Your task to perform on an android device: turn notification dots off Image 0: 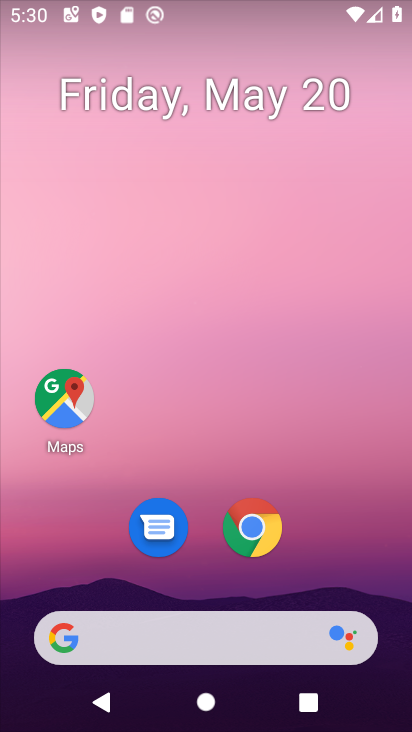
Step 0: drag from (228, 658) to (246, 12)
Your task to perform on an android device: turn notification dots off Image 1: 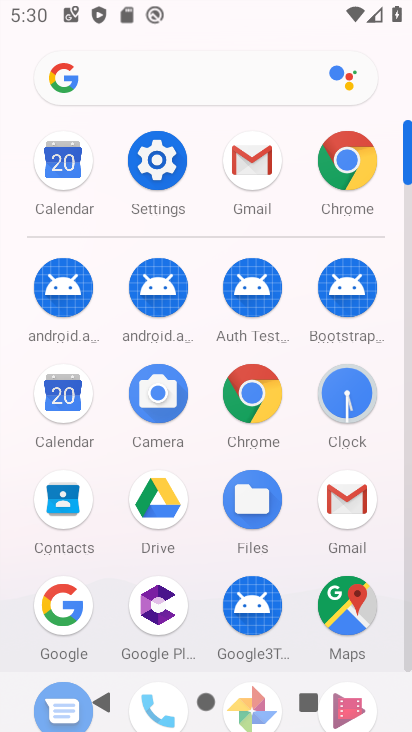
Step 1: drag from (285, 554) to (288, 166)
Your task to perform on an android device: turn notification dots off Image 2: 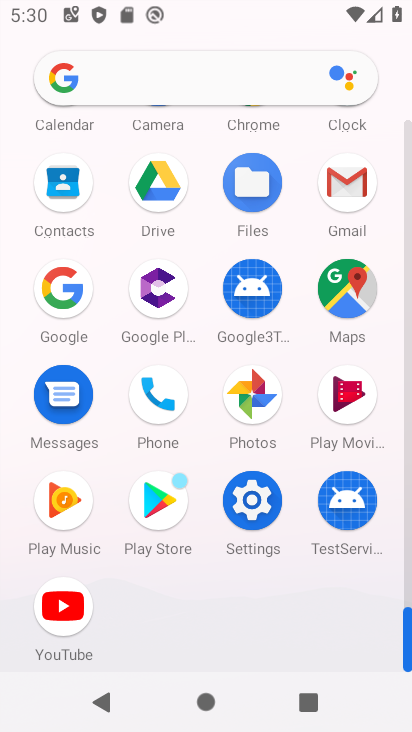
Step 2: click (248, 507)
Your task to perform on an android device: turn notification dots off Image 3: 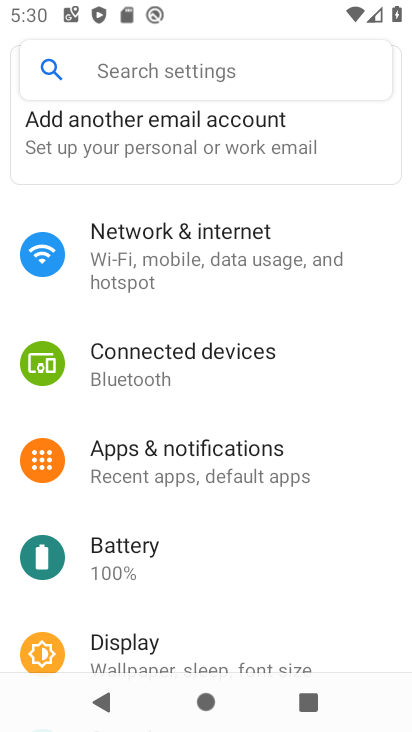
Step 3: click (221, 469)
Your task to perform on an android device: turn notification dots off Image 4: 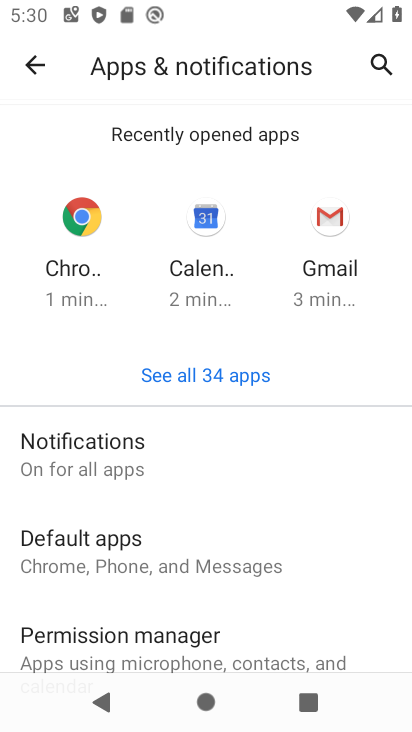
Step 4: drag from (232, 640) to (208, 330)
Your task to perform on an android device: turn notification dots off Image 5: 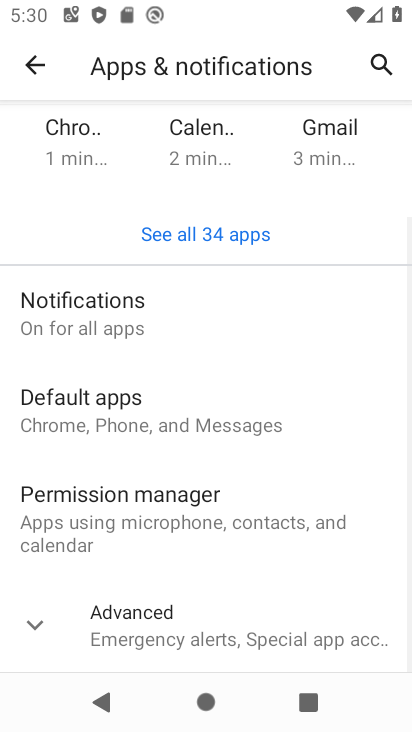
Step 5: click (141, 319)
Your task to perform on an android device: turn notification dots off Image 6: 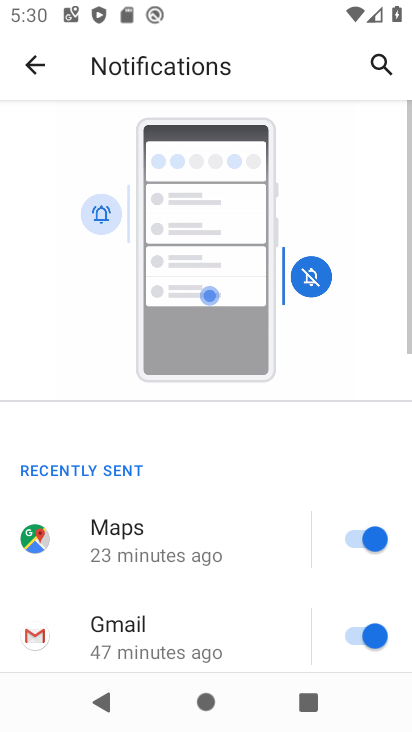
Step 6: drag from (203, 655) to (218, 290)
Your task to perform on an android device: turn notification dots off Image 7: 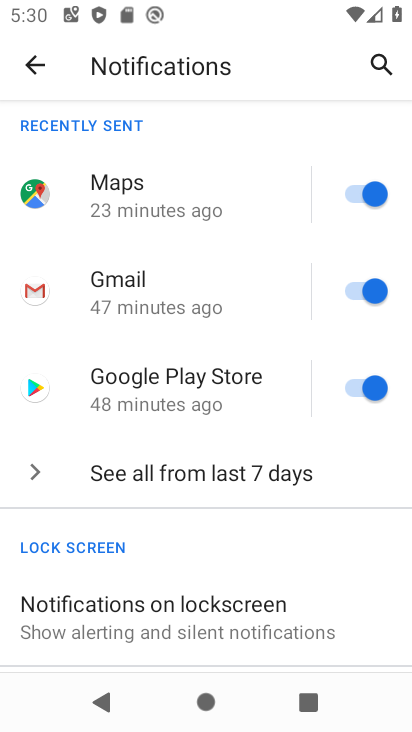
Step 7: drag from (290, 602) to (271, 235)
Your task to perform on an android device: turn notification dots off Image 8: 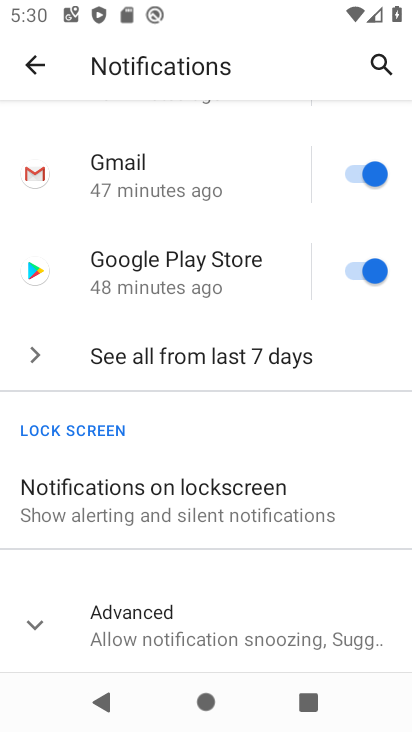
Step 8: click (211, 628)
Your task to perform on an android device: turn notification dots off Image 9: 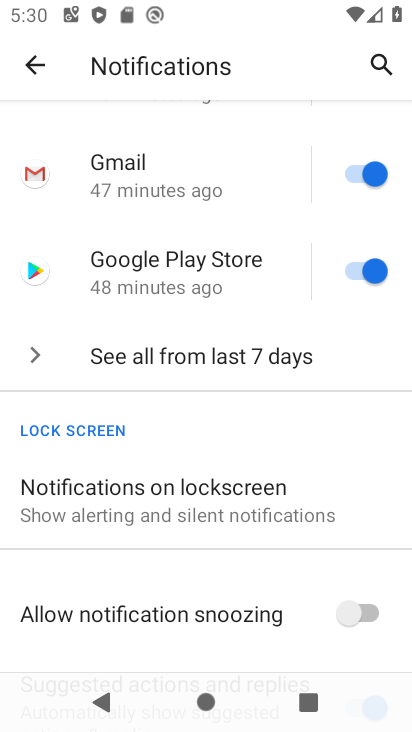
Step 9: drag from (237, 631) to (200, 224)
Your task to perform on an android device: turn notification dots off Image 10: 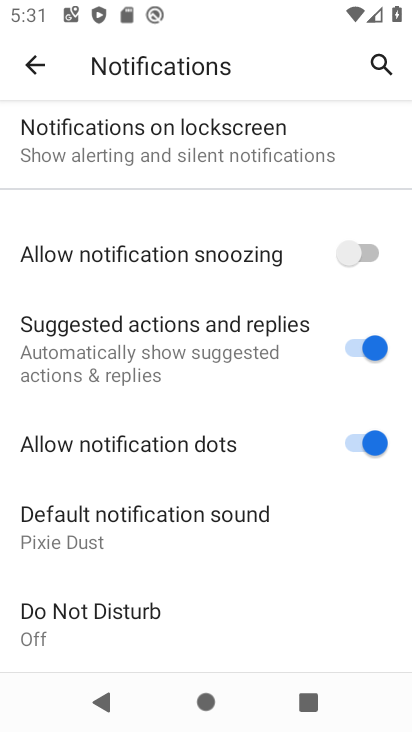
Step 10: click (355, 438)
Your task to perform on an android device: turn notification dots off Image 11: 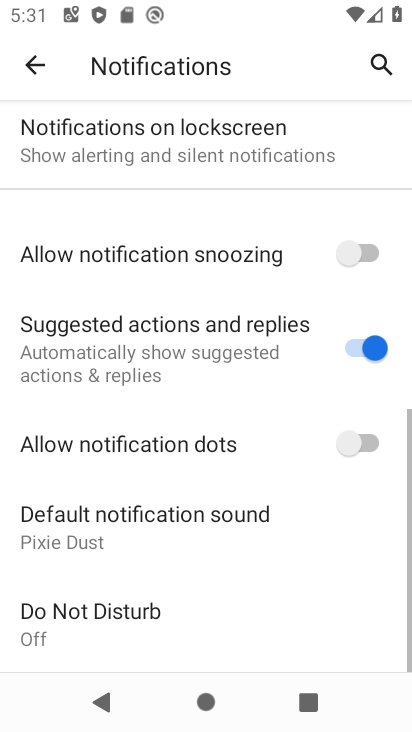
Step 11: task complete